Your task to perform on an android device: Open Google Maps and go to "Timeline" Image 0: 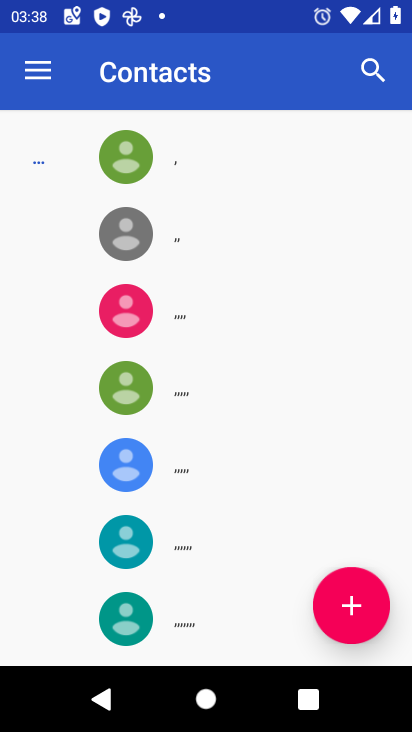
Step 0: press home button
Your task to perform on an android device: Open Google Maps and go to "Timeline" Image 1: 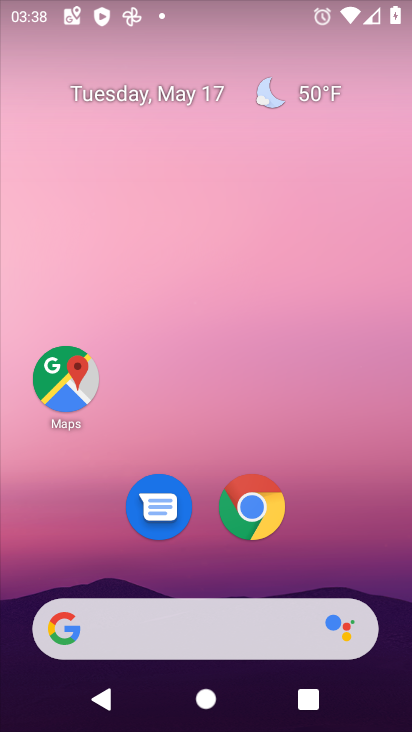
Step 1: click (60, 388)
Your task to perform on an android device: Open Google Maps and go to "Timeline" Image 2: 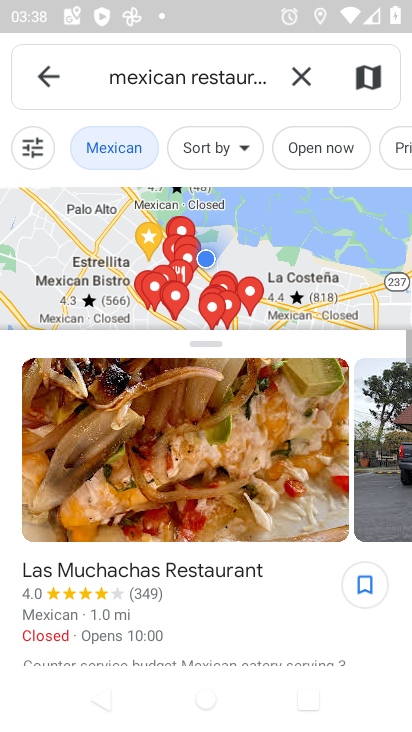
Step 2: click (299, 77)
Your task to perform on an android device: Open Google Maps and go to "Timeline" Image 3: 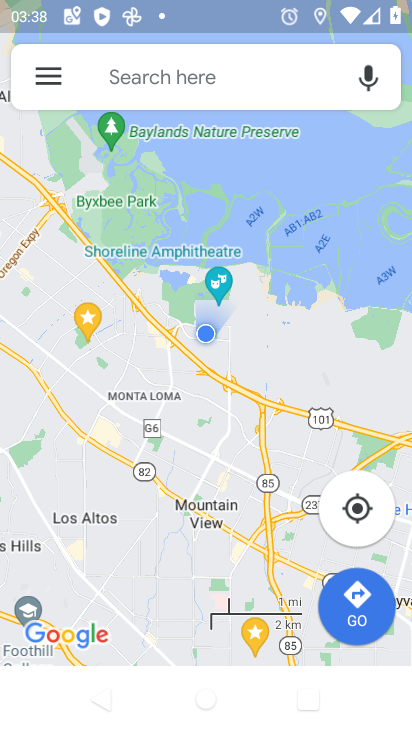
Step 3: click (47, 76)
Your task to perform on an android device: Open Google Maps and go to "Timeline" Image 4: 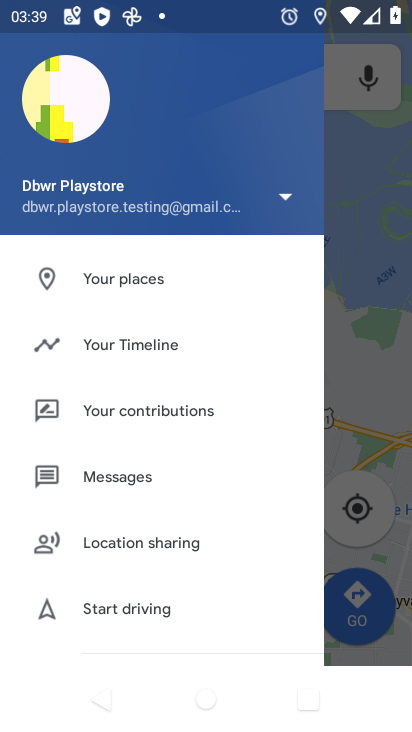
Step 4: click (124, 348)
Your task to perform on an android device: Open Google Maps and go to "Timeline" Image 5: 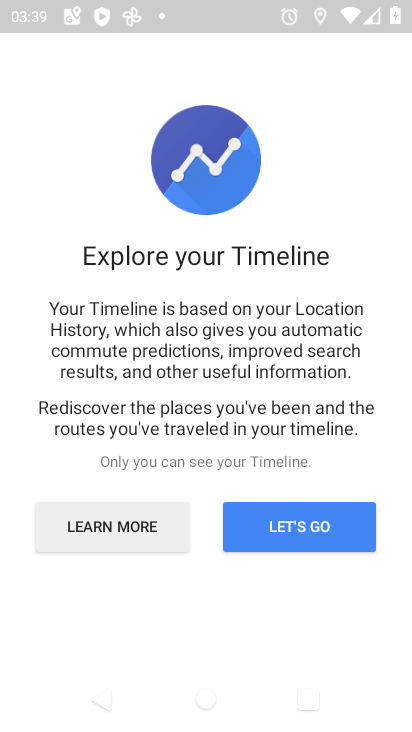
Step 5: click (316, 530)
Your task to perform on an android device: Open Google Maps and go to "Timeline" Image 6: 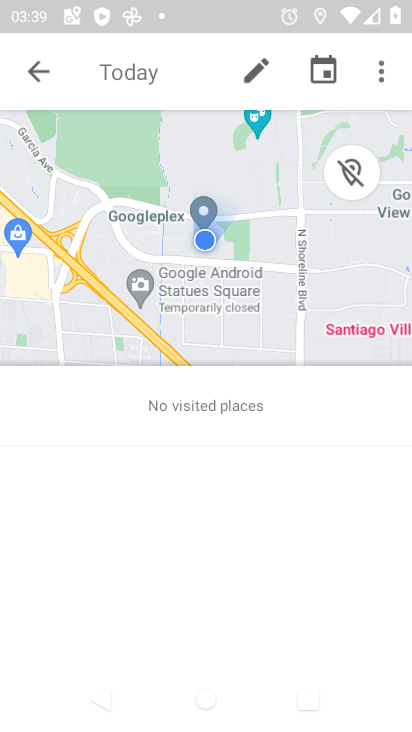
Step 6: task complete